Your task to perform on an android device: Set the phone to "Do not disturb". Image 0: 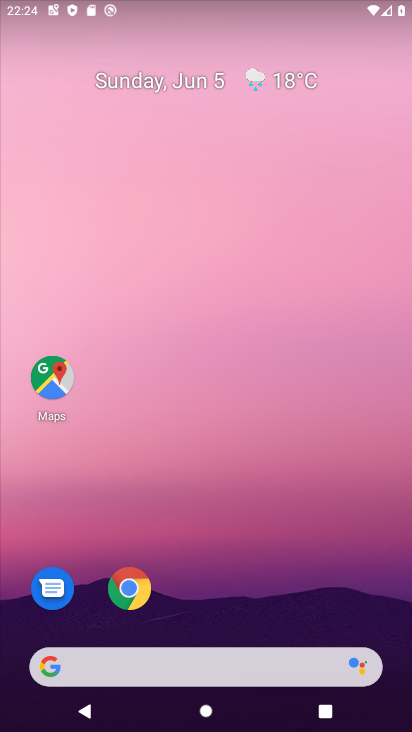
Step 0: drag from (350, 609) to (347, 217)
Your task to perform on an android device: Set the phone to "Do not disturb". Image 1: 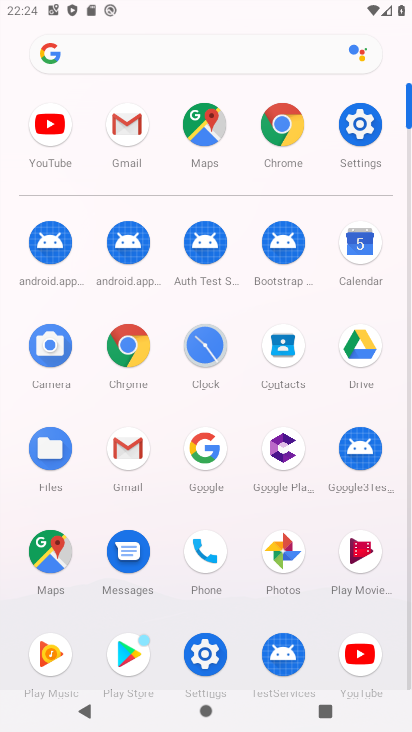
Step 1: click (370, 125)
Your task to perform on an android device: Set the phone to "Do not disturb". Image 2: 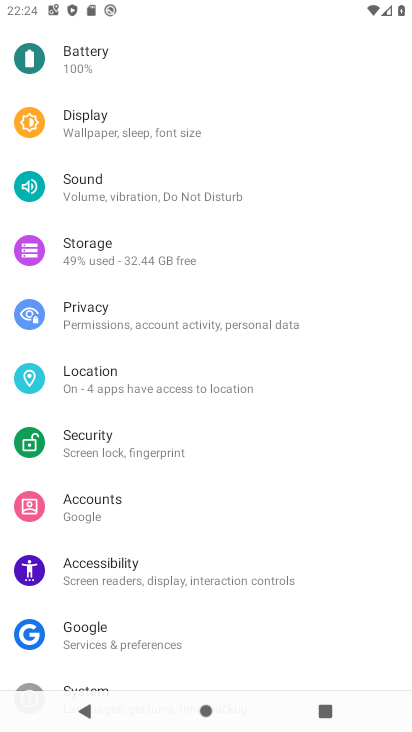
Step 2: drag from (320, 535) to (312, 381)
Your task to perform on an android device: Set the phone to "Do not disturb". Image 3: 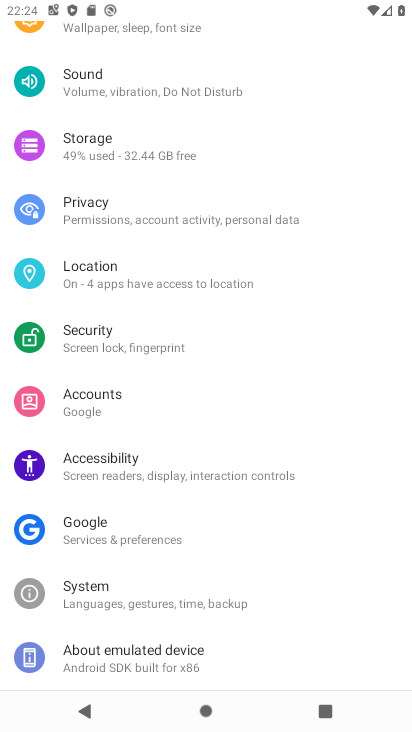
Step 3: drag from (336, 593) to (323, 415)
Your task to perform on an android device: Set the phone to "Do not disturb". Image 4: 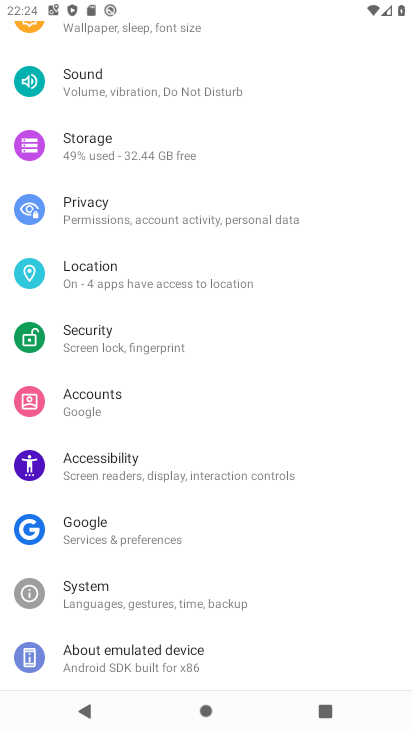
Step 4: drag from (324, 288) to (337, 445)
Your task to perform on an android device: Set the phone to "Do not disturb". Image 5: 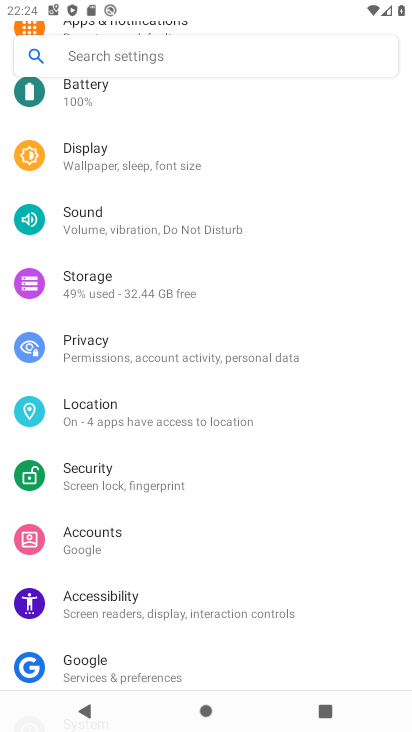
Step 5: drag from (315, 266) to (336, 429)
Your task to perform on an android device: Set the phone to "Do not disturb". Image 6: 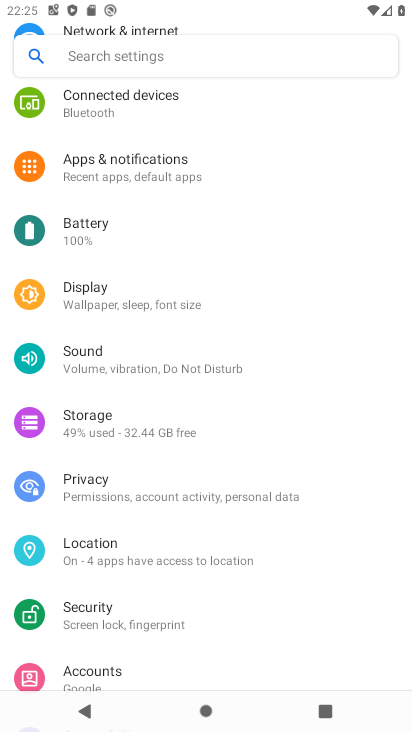
Step 6: drag from (320, 261) to (337, 419)
Your task to perform on an android device: Set the phone to "Do not disturb". Image 7: 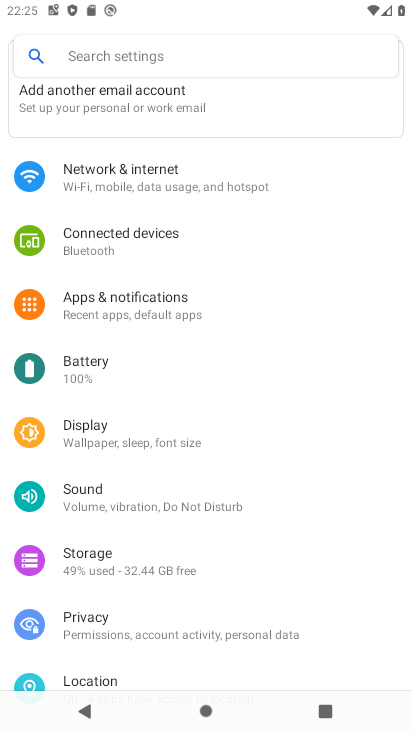
Step 7: drag from (331, 291) to (332, 475)
Your task to perform on an android device: Set the phone to "Do not disturb". Image 8: 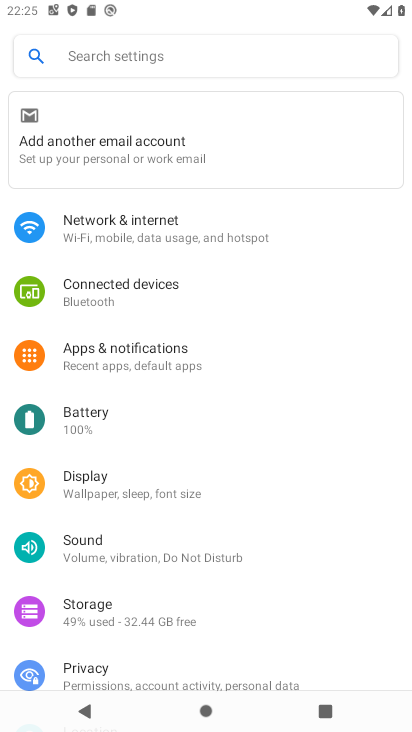
Step 8: drag from (324, 550) to (313, 319)
Your task to perform on an android device: Set the phone to "Do not disturb". Image 9: 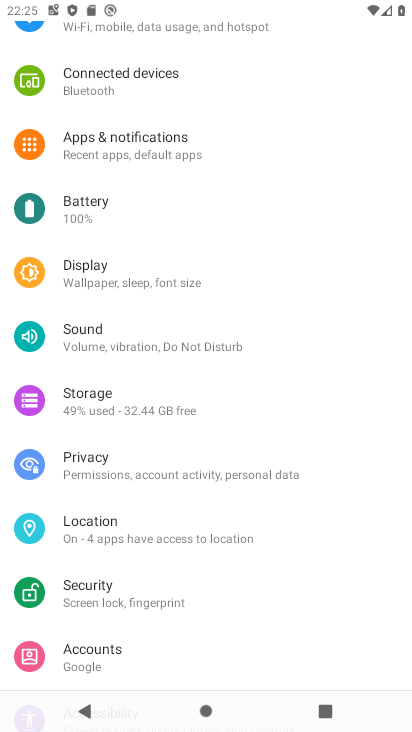
Step 9: click (169, 329)
Your task to perform on an android device: Set the phone to "Do not disturb". Image 10: 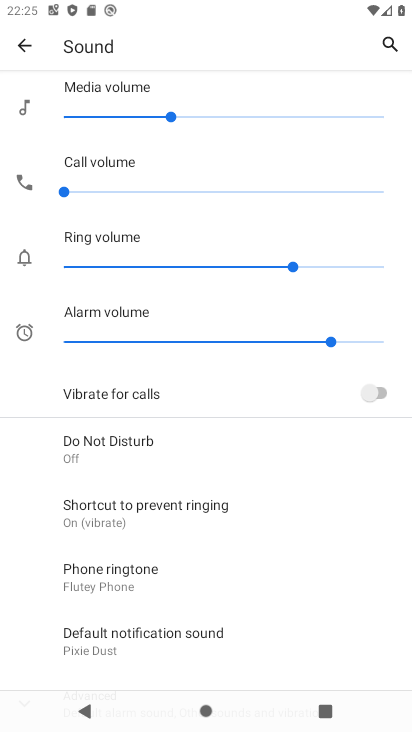
Step 10: click (120, 451)
Your task to perform on an android device: Set the phone to "Do not disturb". Image 11: 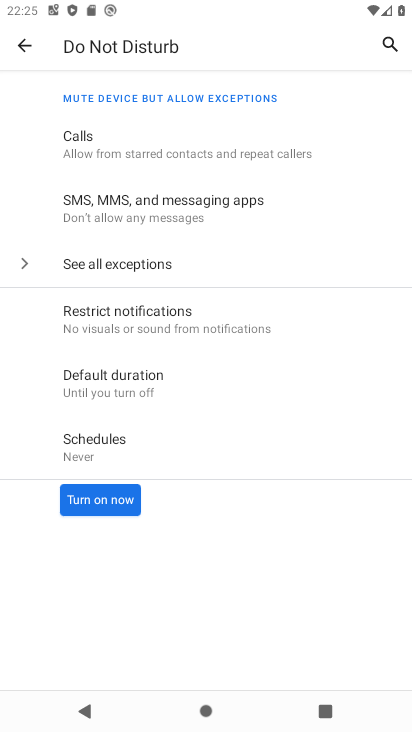
Step 11: click (107, 497)
Your task to perform on an android device: Set the phone to "Do not disturb". Image 12: 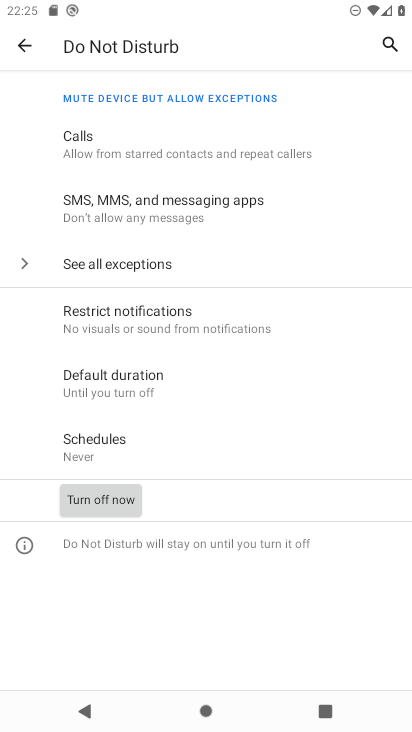
Step 12: task complete